Your task to perform on an android device: Show me recent news Image 0: 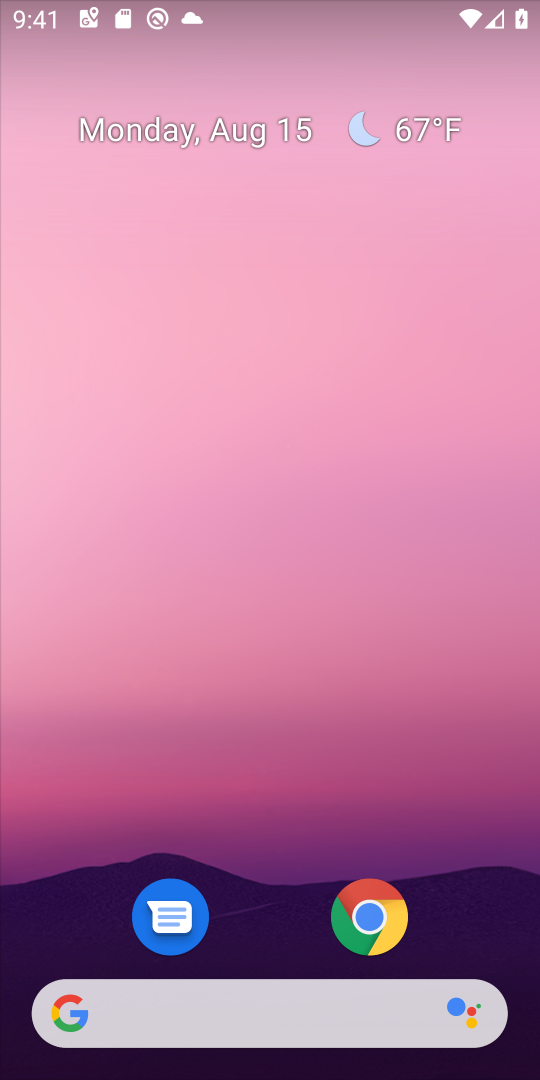
Step 0: click (255, 1011)
Your task to perform on an android device: Show me recent news Image 1: 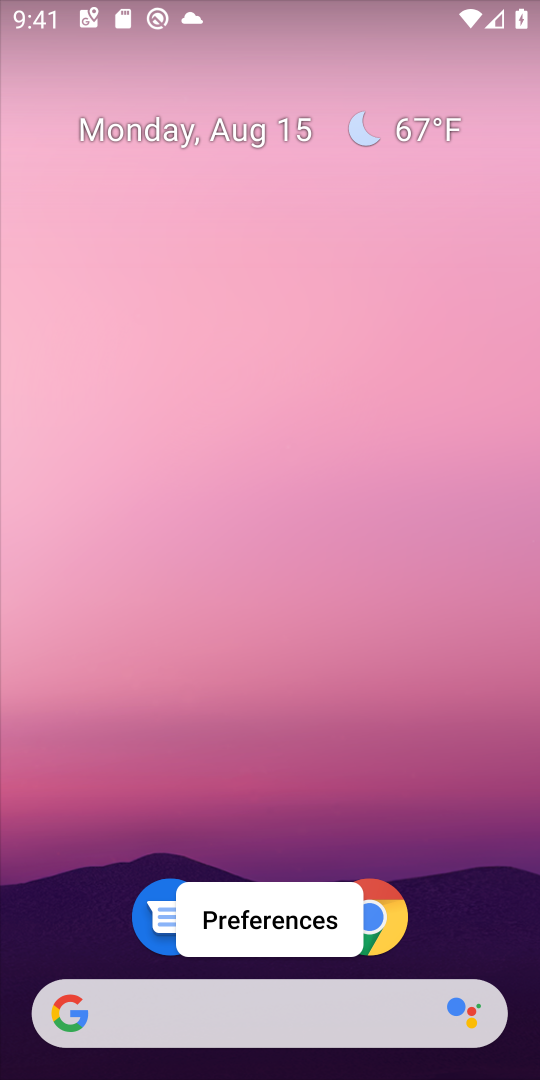
Step 1: click (287, 998)
Your task to perform on an android device: Show me recent news Image 2: 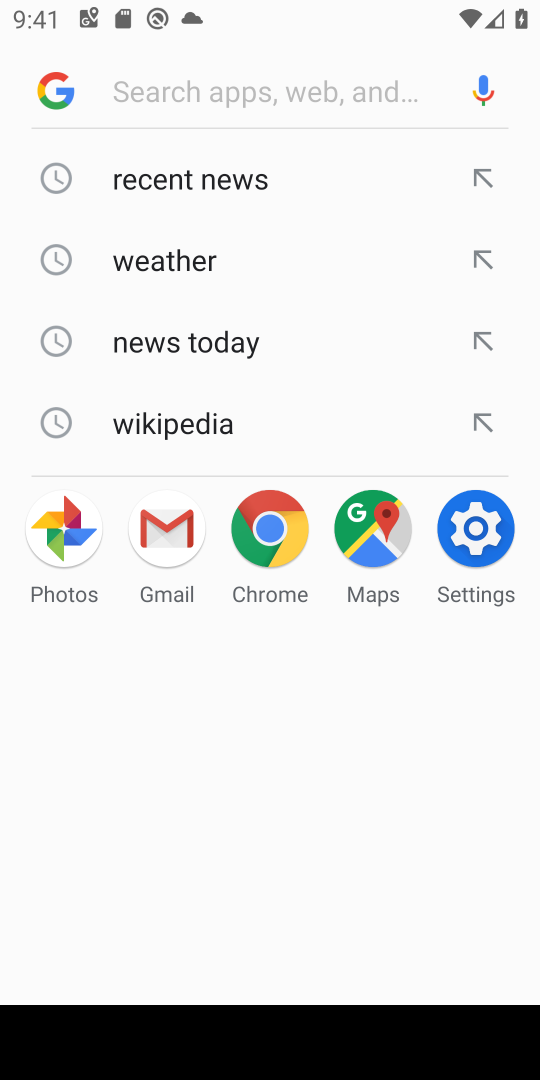
Step 2: click (201, 173)
Your task to perform on an android device: Show me recent news Image 3: 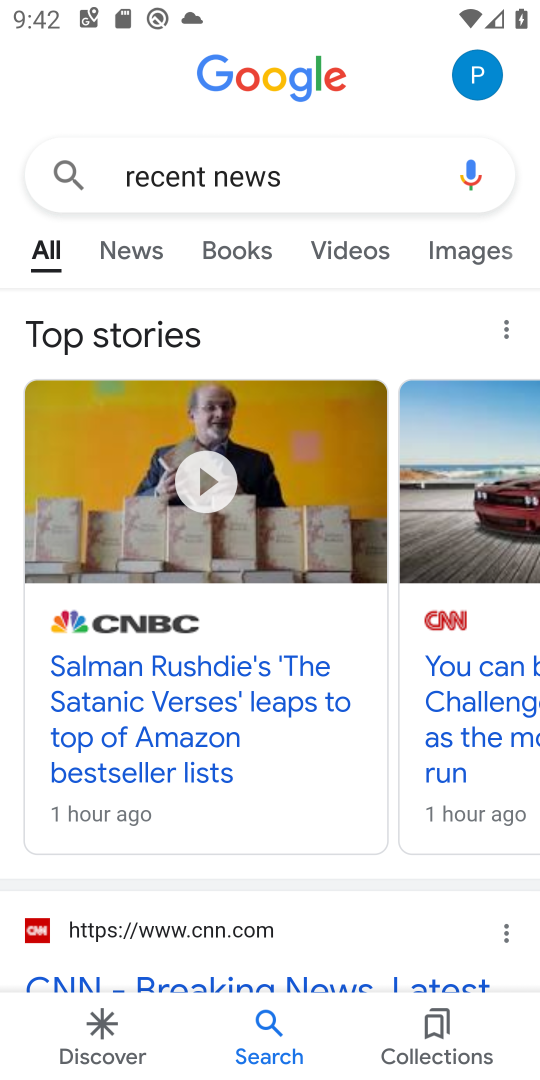
Step 3: click (173, 723)
Your task to perform on an android device: Show me recent news Image 4: 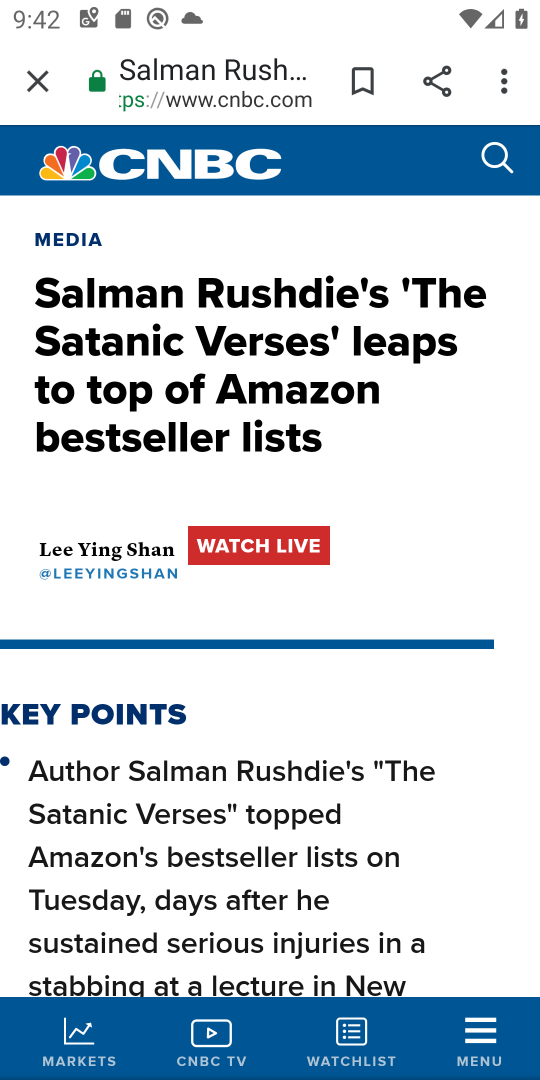
Step 4: task complete